Your task to perform on an android device: Open Chrome and go to the settings page Image 0: 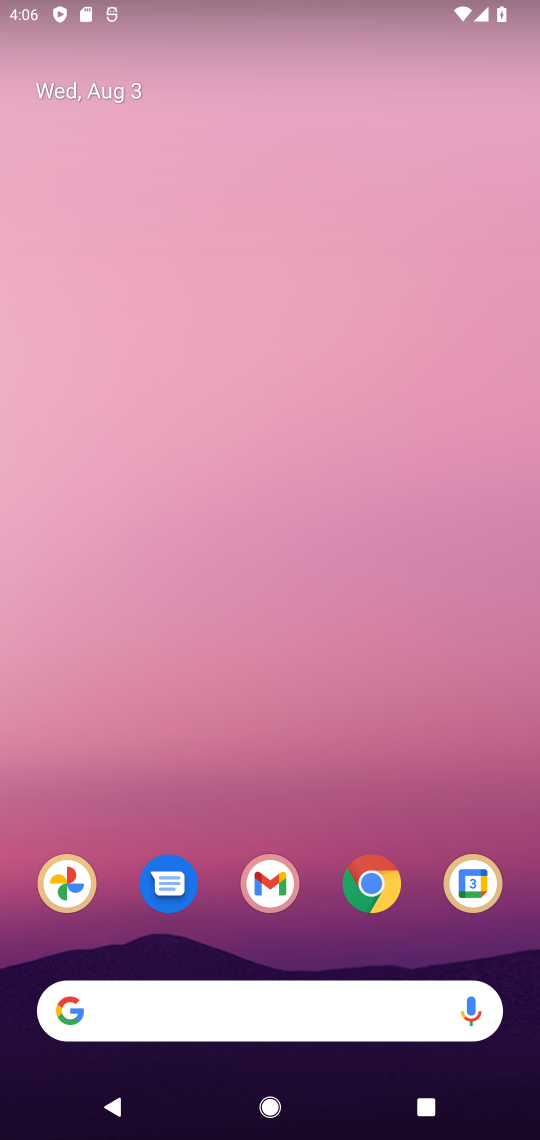
Step 0: click (384, 892)
Your task to perform on an android device: Open Chrome and go to the settings page Image 1: 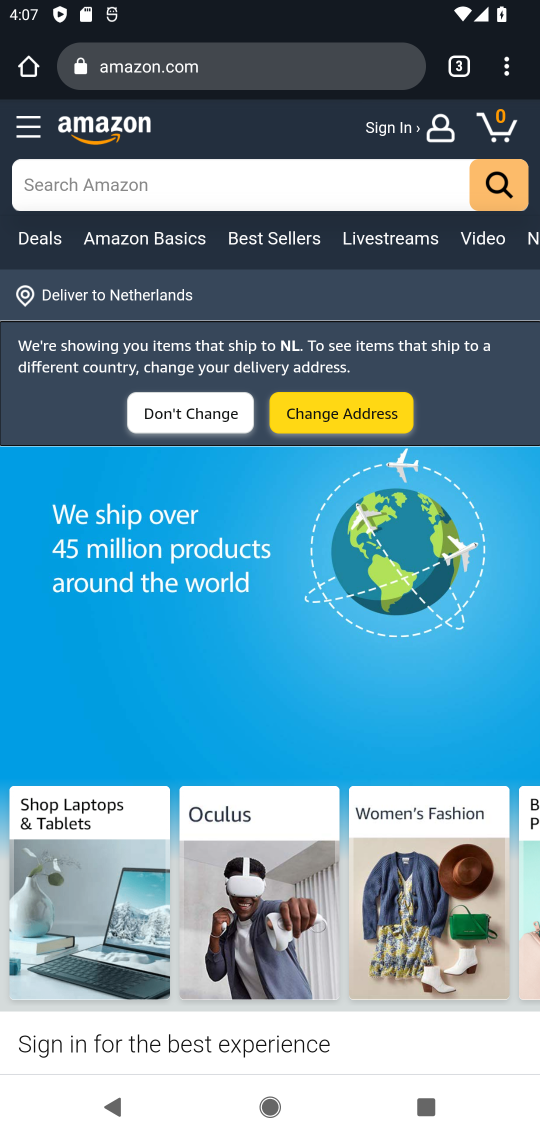
Step 1: click (506, 66)
Your task to perform on an android device: Open Chrome and go to the settings page Image 2: 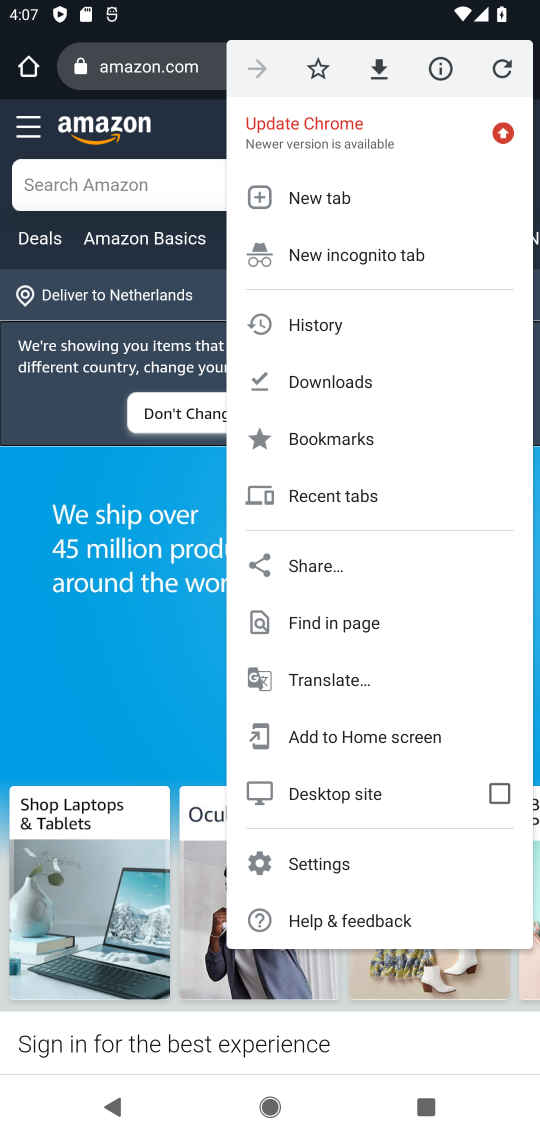
Step 2: click (346, 859)
Your task to perform on an android device: Open Chrome and go to the settings page Image 3: 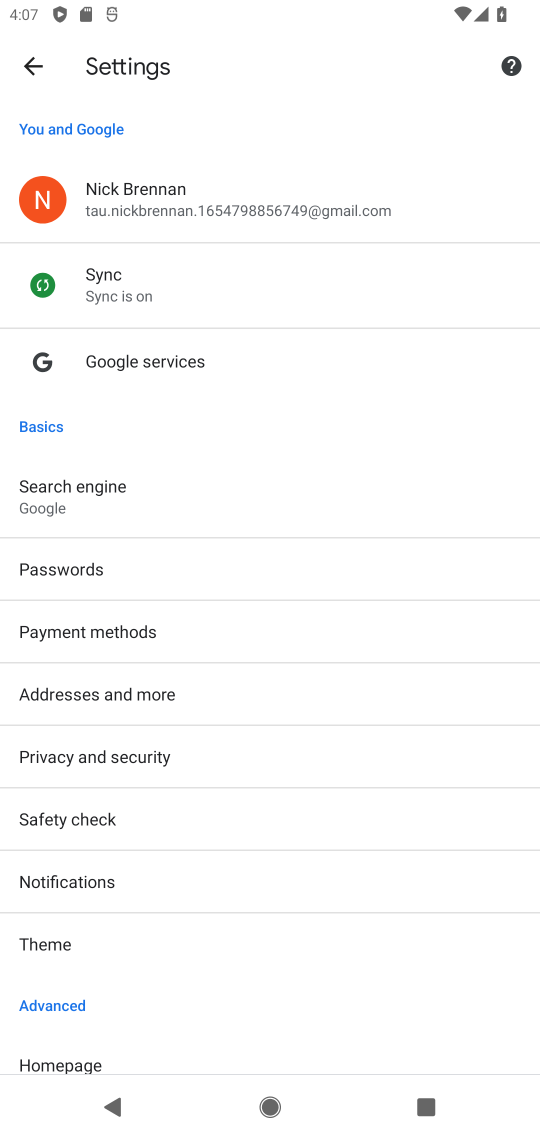
Step 3: task complete